Your task to perform on an android device: open wifi settings Image 0: 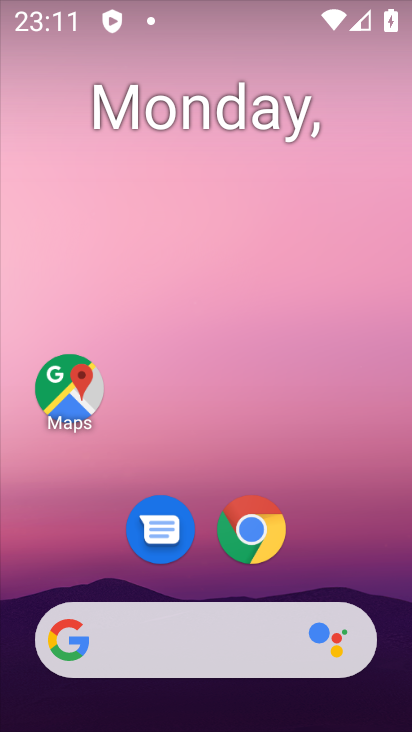
Step 0: drag from (351, 535) to (346, 81)
Your task to perform on an android device: open wifi settings Image 1: 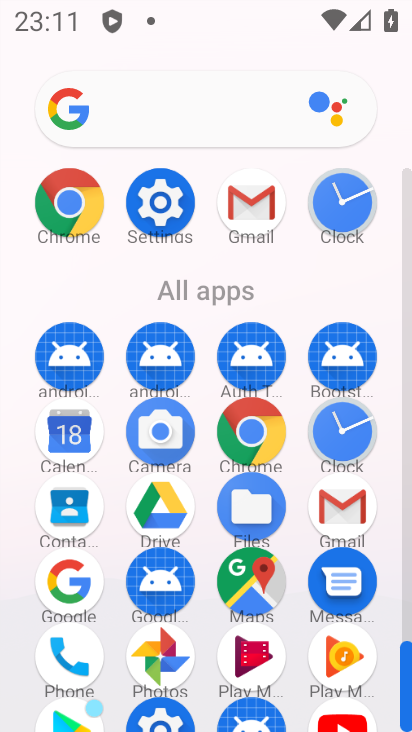
Step 1: click (165, 210)
Your task to perform on an android device: open wifi settings Image 2: 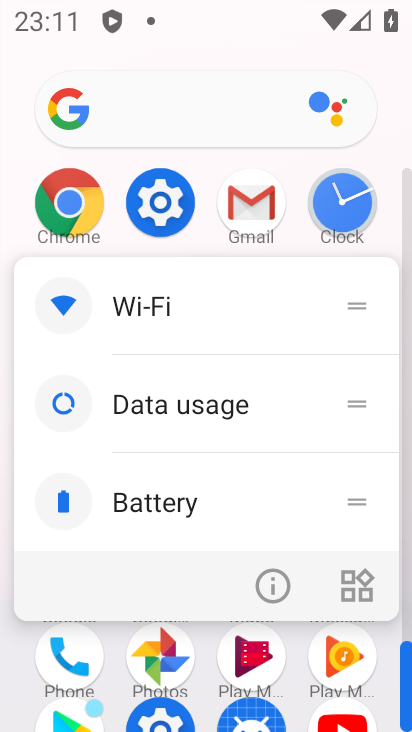
Step 2: click (165, 210)
Your task to perform on an android device: open wifi settings Image 3: 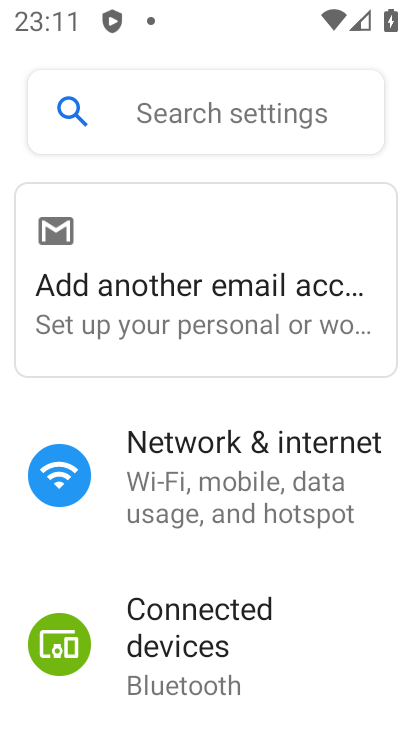
Step 3: click (201, 431)
Your task to perform on an android device: open wifi settings Image 4: 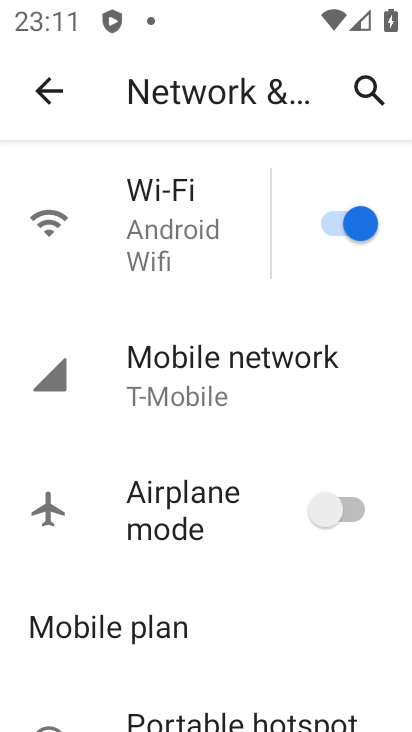
Step 4: click (153, 236)
Your task to perform on an android device: open wifi settings Image 5: 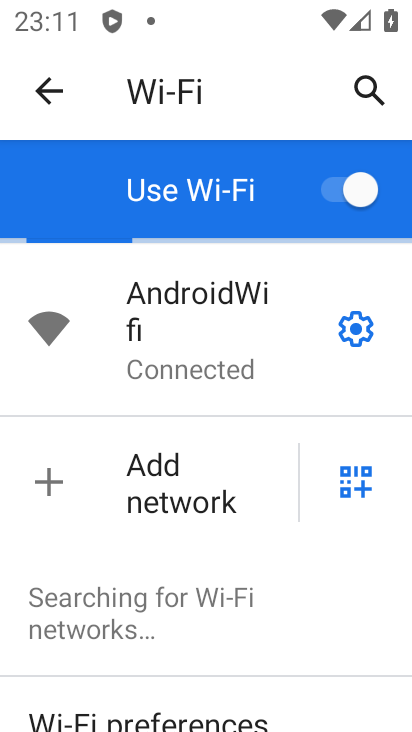
Step 5: click (367, 327)
Your task to perform on an android device: open wifi settings Image 6: 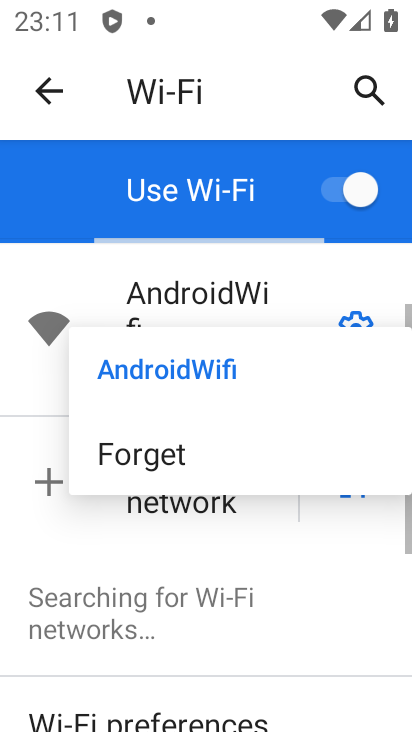
Step 6: click (367, 326)
Your task to perform on an android device: open wifi settings Image 7: 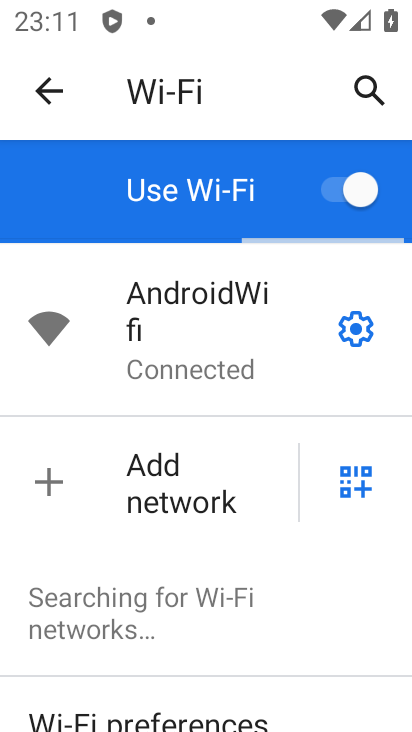
Step 7: click (357, 323)
Your task to perform on an android device: open wifi settings Image 8: 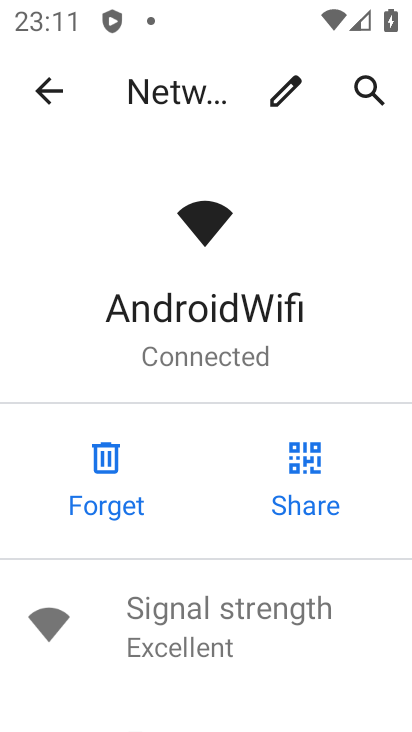
Step 8: task complete